Your task to perform on an android device: toggle pop-ups in chrome Image 0: 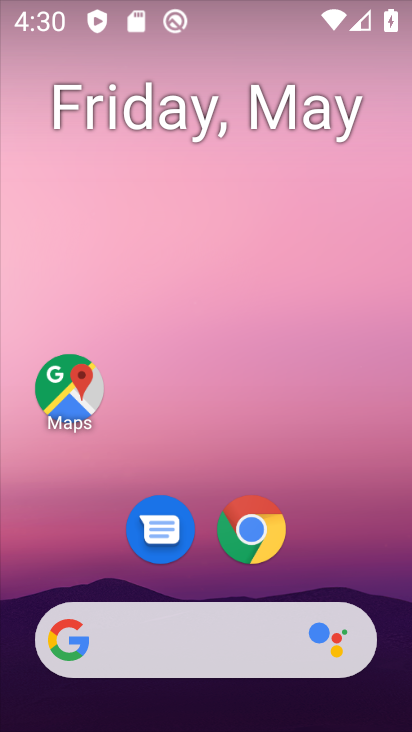
Step 0: click (270, 515)
Your task to perform on an android device: toggle pop-ups in chrome Image 1: 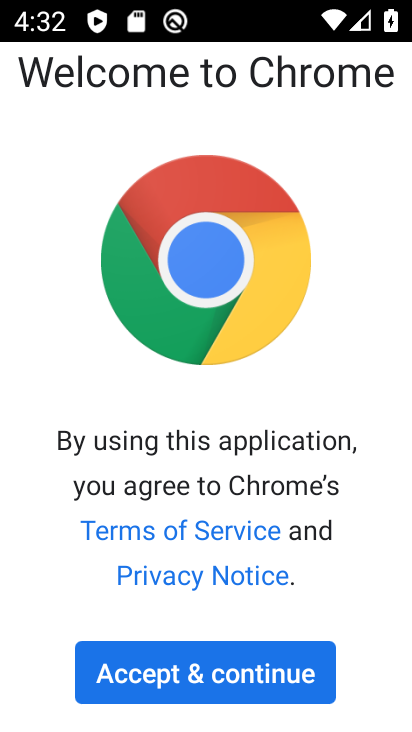
Step 1: click (293, 692)
Your task to perform on an android device: toggle pop-ups in chrome Image 2: 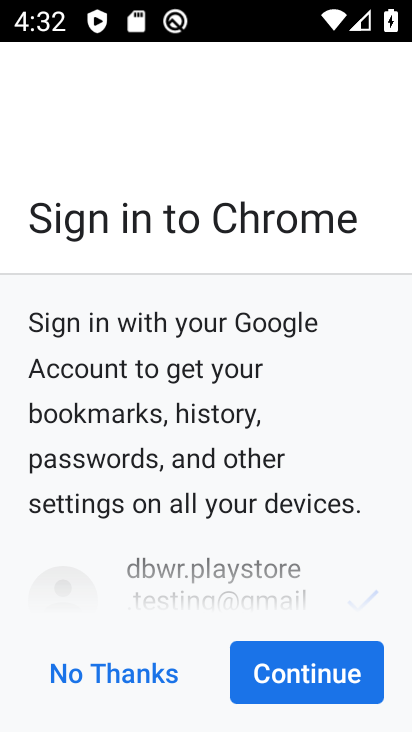
Step 2: click (297, 691)
Your task to perform on an android device: toggle pop-ups in chrome Image 3: 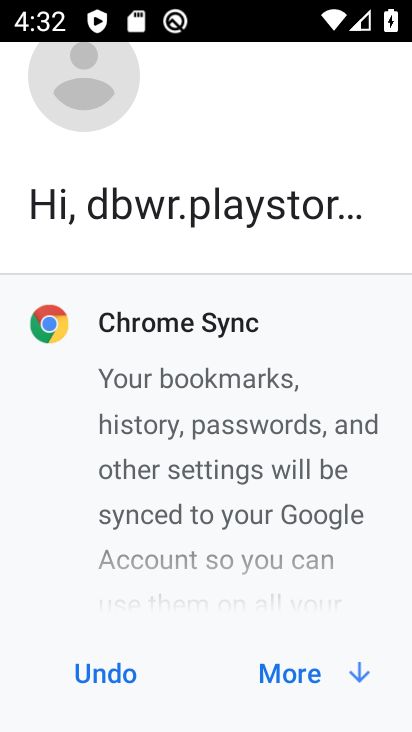
Step 3: click (294, 683)
Your task to perform on an android device: toggle pop-ups in chrome Image 4: 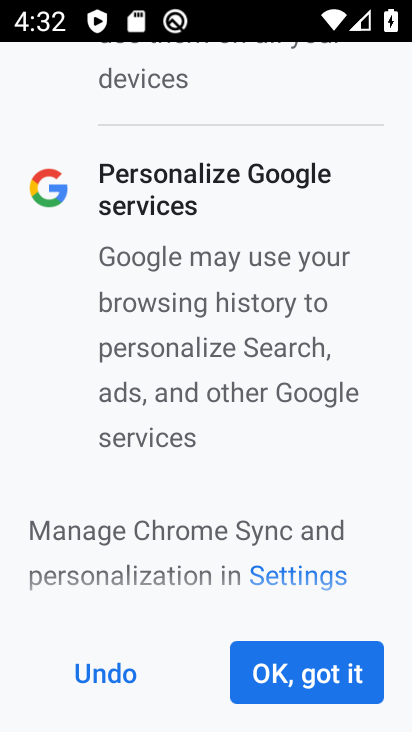
Step 4: click (300, 655)
Your task to perform on an android device: toggle pop-ups in chrome Image 5: 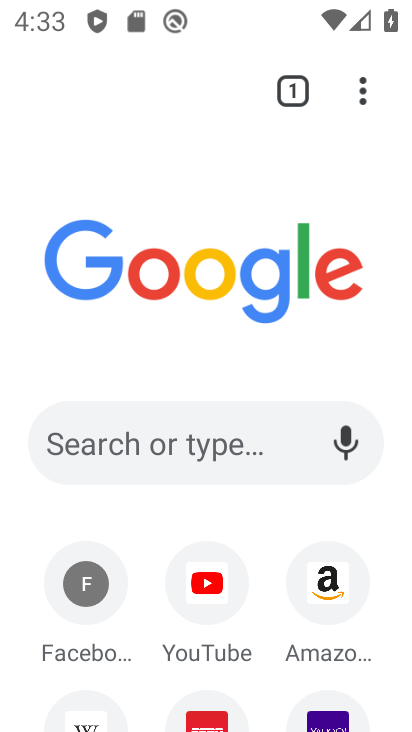
Step 5: click (362, 75)
Your task to perform on an android device: toggle pop-ups in chrome Image 6: 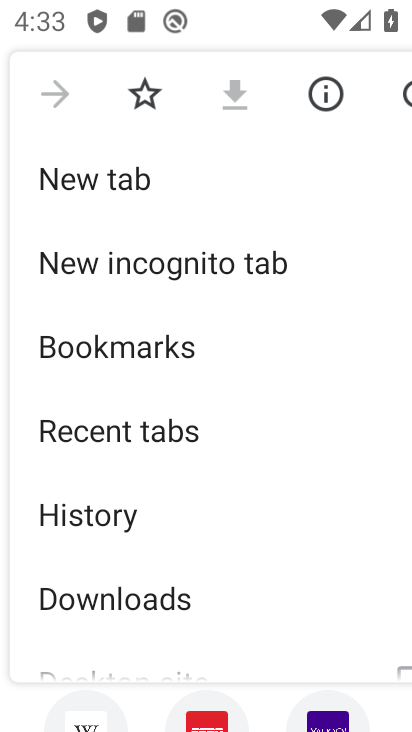
Step 6: drag from (240, 550) to (215, 309)
Your task to perform on an android device: toggle pop-ups in chrome Image 7: 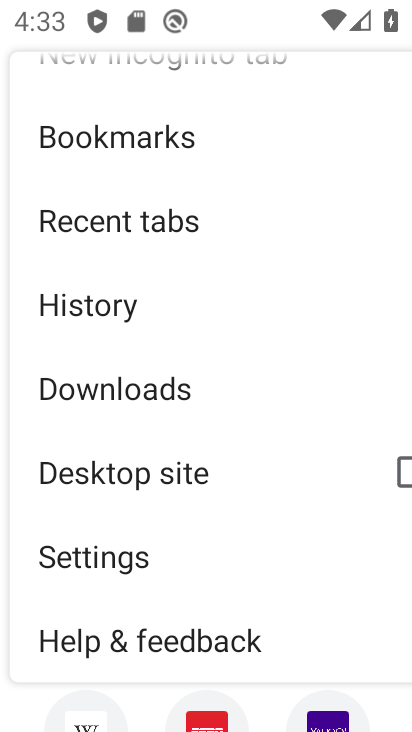
Step 7: click (125, 556)
Your task to perform on an android device: toggle pop-ups in chrome Image 8: 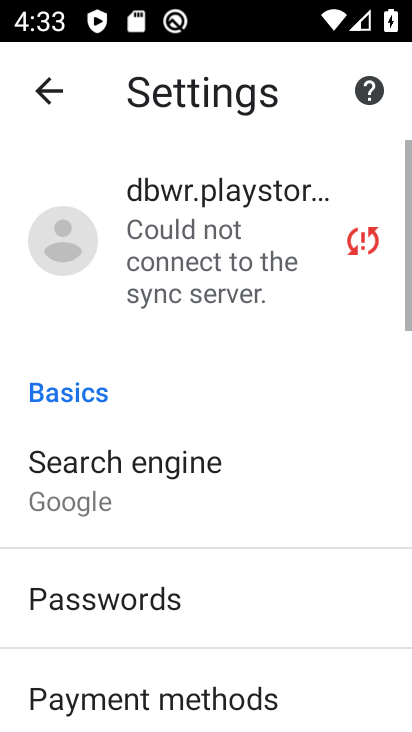
Step 8: drag from (261, 635) to (290, 176)
Your task to perform on an android device: toggle pop-ups in chrome Image 9: 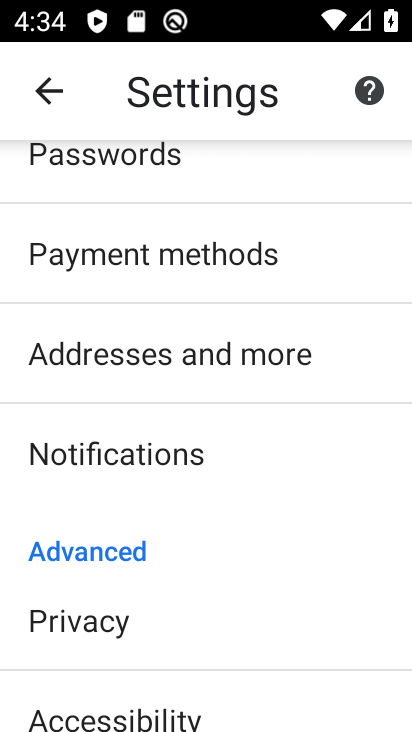
Step 9: drag from (143, 589) to (126, 211)
Your task to perform on an android device: toggle pop-ups in chrome Image 10: 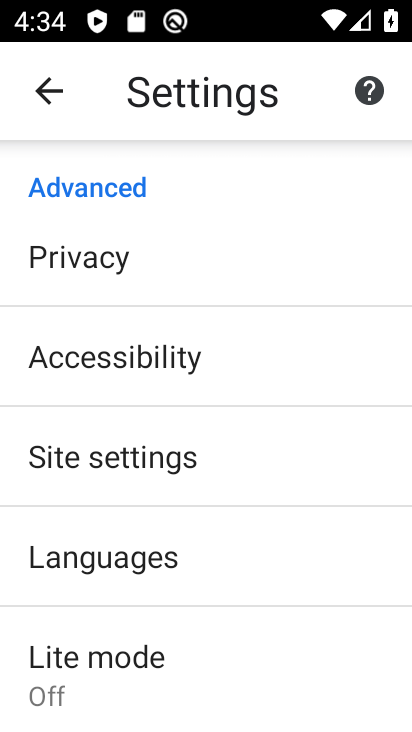
Step 10: click (128, 465)
Your task to perform on an android device: toggle pop-ups in chrome Image 11: 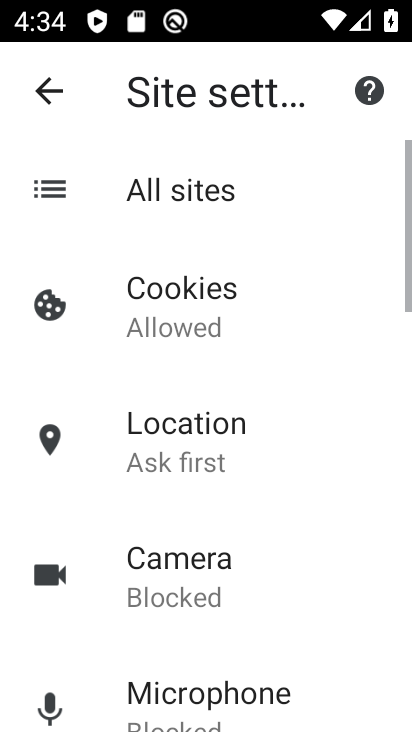
Step 11: drag from (155, 550) to (116, 152)
Your task to perform on an android device: toggle pop-ups in chrome Image 12: 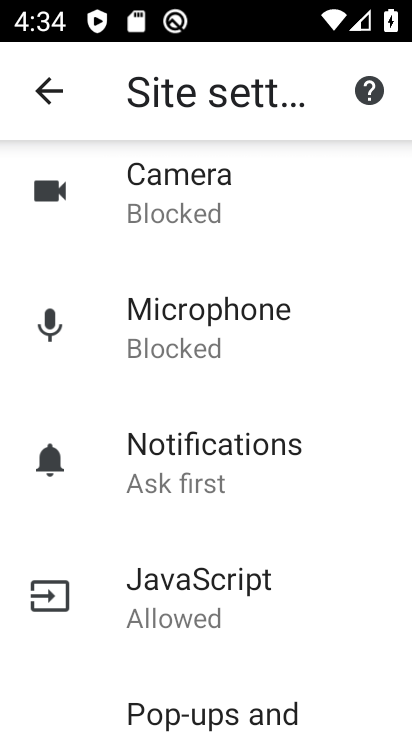
Step 12: drag from (180, 531) to (173, 212)
Your task to perform on an android device: toggle pop-ups in chrome Image 13: 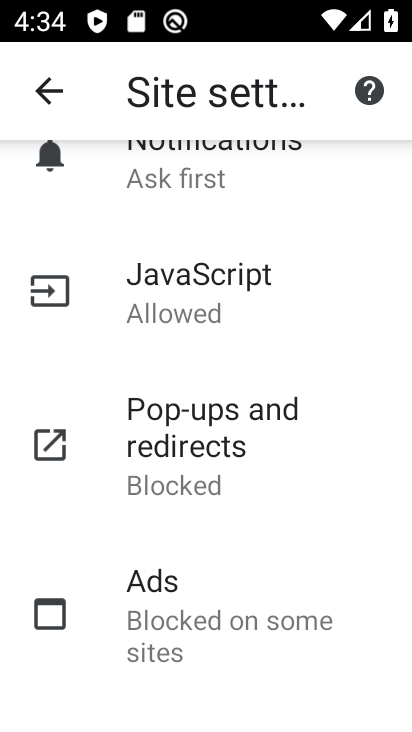
Step 13: click (214, 432)
Your task to perform on an android device: toggle pop-ups in chrome Image 14: 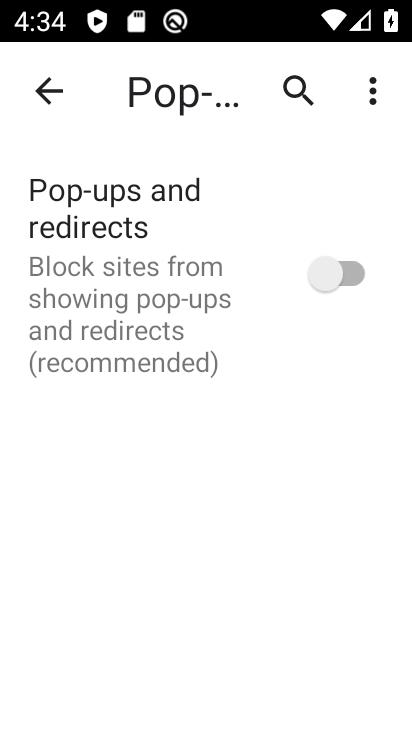
Step 14: click (116, 294)
Your task to perform on an android device: toggle pop-ups in chrome Image 15: 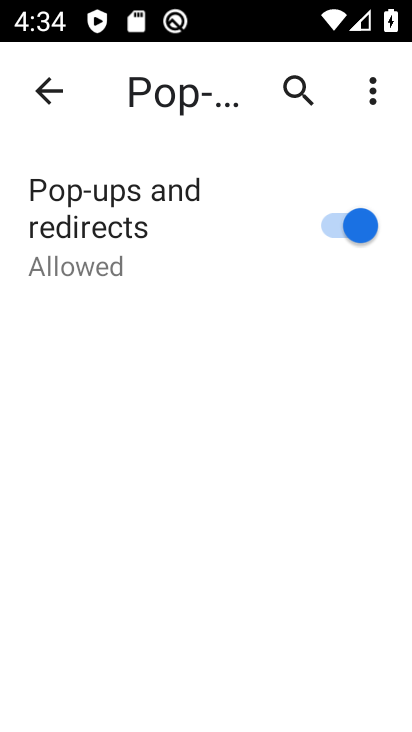
Step 15: task complete